Your task to perform on an android device: turn notification dots on Image 0: 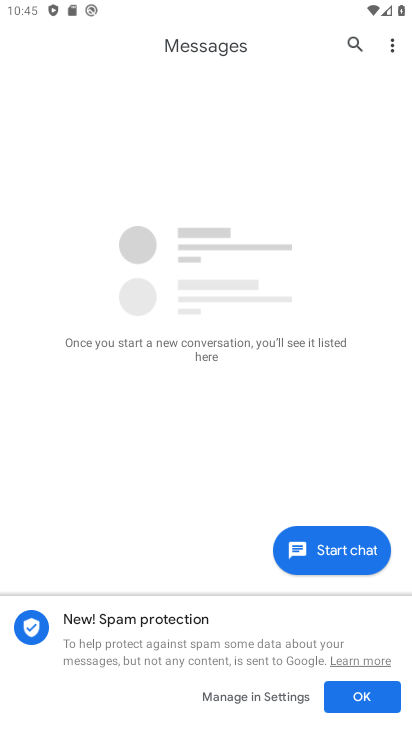
Step 0: press home button
Your task to perform on an android device: turn notification dots on Image 1: 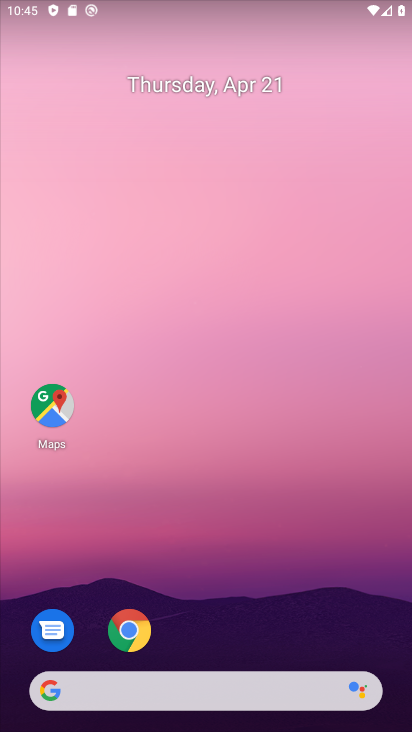
Step 1: drag from (334, 553) to (346, 84)
Your task to perform on an android device: turn notification dots on Image 2: 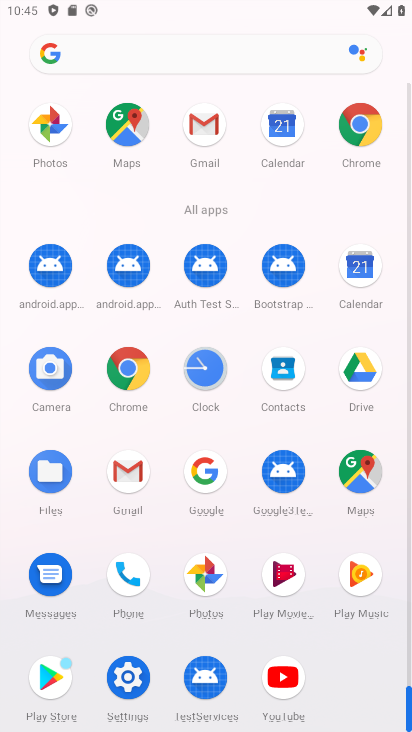
Step 2: click (122, 674)
Your task to perform on an android device: turn notification dots on Image 3: 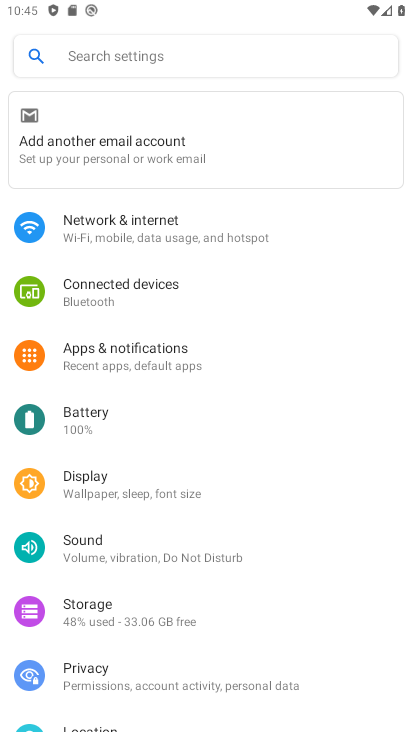
Step 3: click (153, 358)
Your task to perform on an android device: turn notification dots on Image 4: 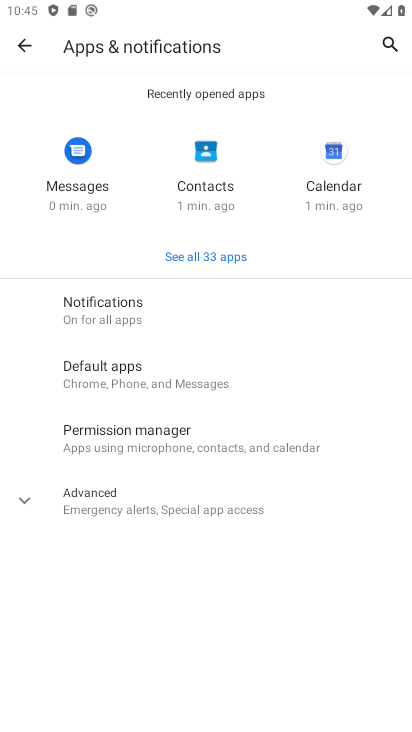
Step 4: click (92, 300)
Your task to perform on an android device: turn notification dots on Image 5: 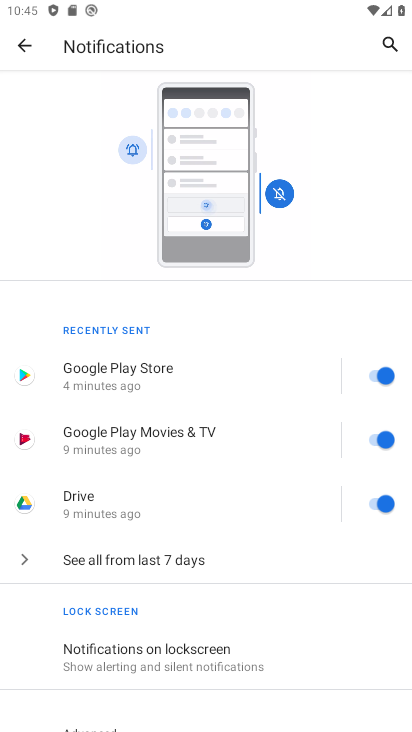
Step 5: drag from (300, 608) to (359, 216)
Your task to perform on an android device: turn notification dots on Image 6: 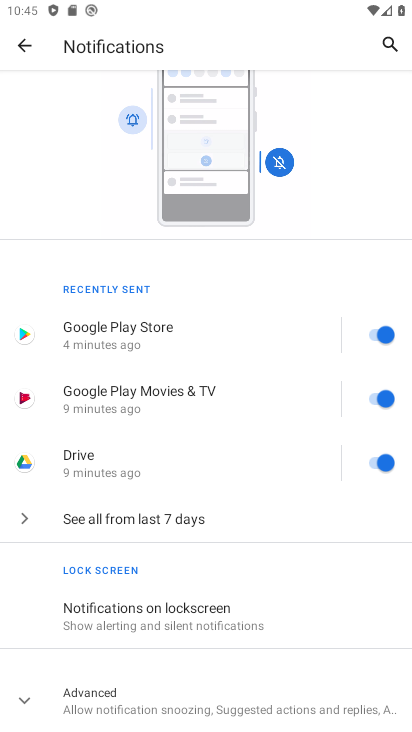
Step 6: click (127, 700)
Your task to perform on an android device: turn notification dots on Image 7: 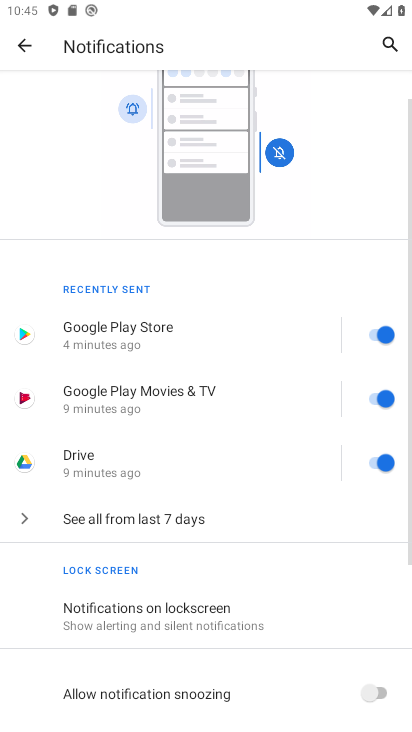
Step 7: task complete